Your task to perform on an android device: Open Google Chrome and click the shortcut for Amazon.com Image 0: 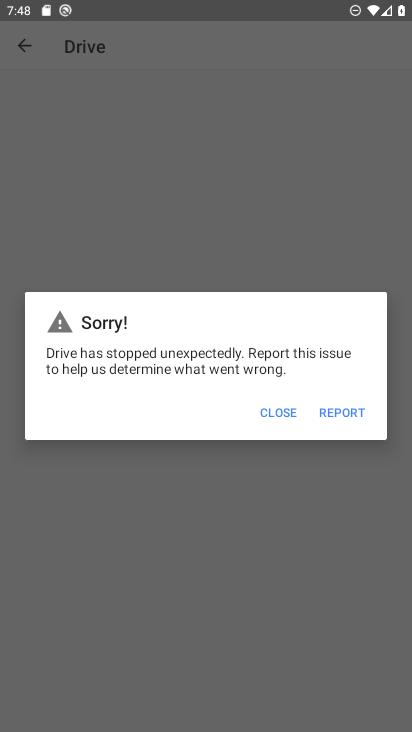
Step 0: press home button
Your task to perform on an android device: Open Google Chrome and click the shortcut for Amazon.com Image 1: 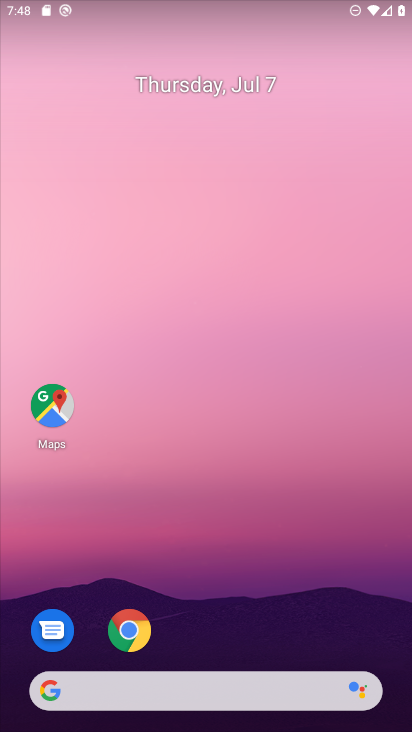
Step 1: click (135, 628)
Your task to perform on an android device: Open Google Chrome and click the shortcut for Amazon.com Image 2: 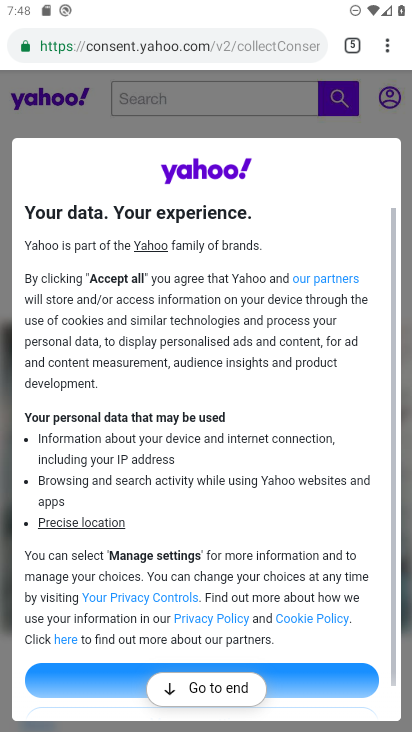
Step 2: click (387, 42)
Your task to perform on an android device: Open Google Chrome and click the shortcut for Amazon.com Image 3: 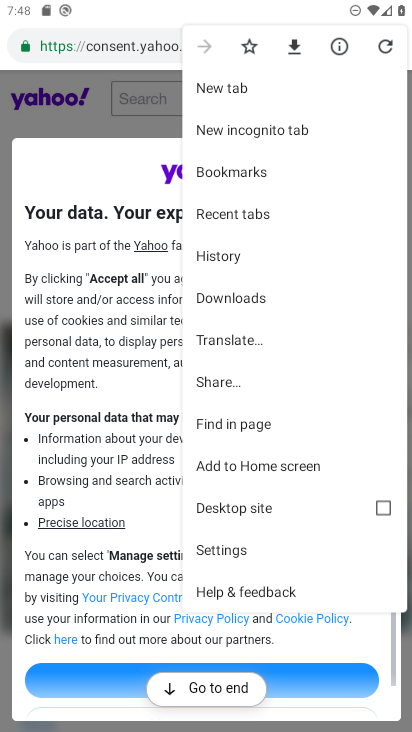
Step 3: click (223, 85)
Your task to perform on an android device: Open Google Chrome and click the shortcut for Amazon.com Image 4: 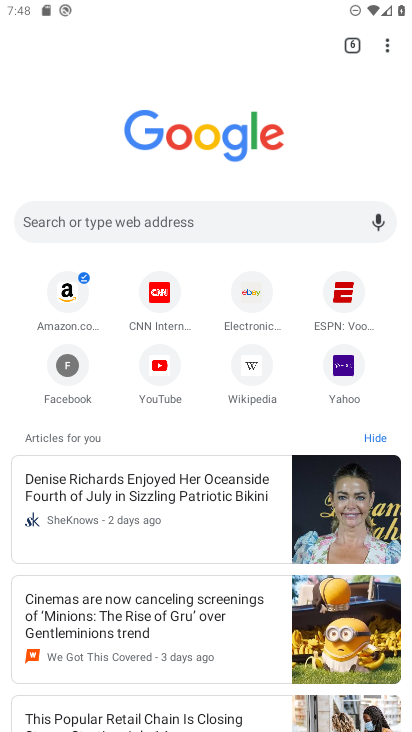
Step 4: click (67, 289)
Your task to perform on an android device: Open Google Chrome and click the shortcut for Amazon.com Image 5: 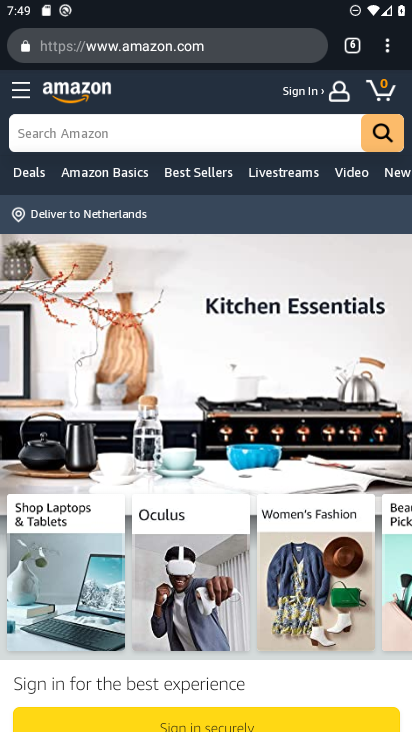
Step 5: task complete